Your task to perform on an android device: turn off data saver in the chrome app Image 0: 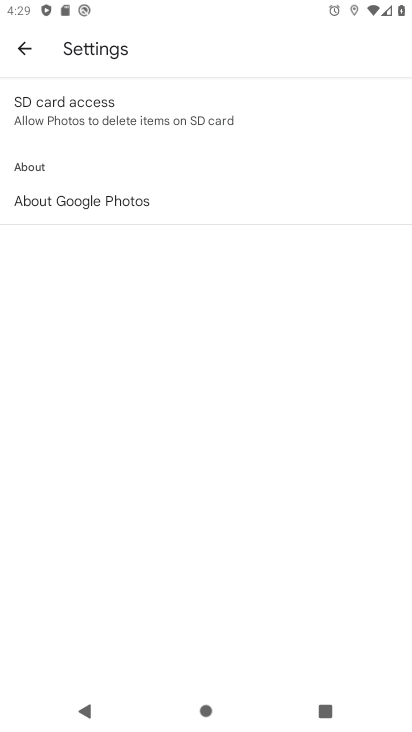
Step 0: press home button
Your task to perform on an android device: turn off data saver in the chrome app Image 1: 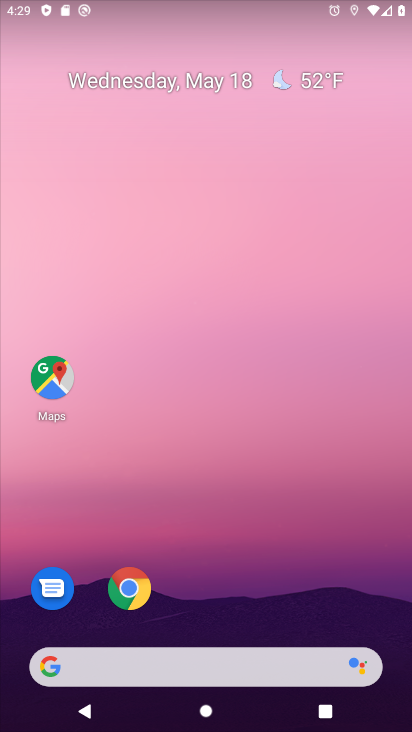
Step 1: click (117, 584)
Your task to perform on an android device: turn off data saver in the chrome app Image 2: 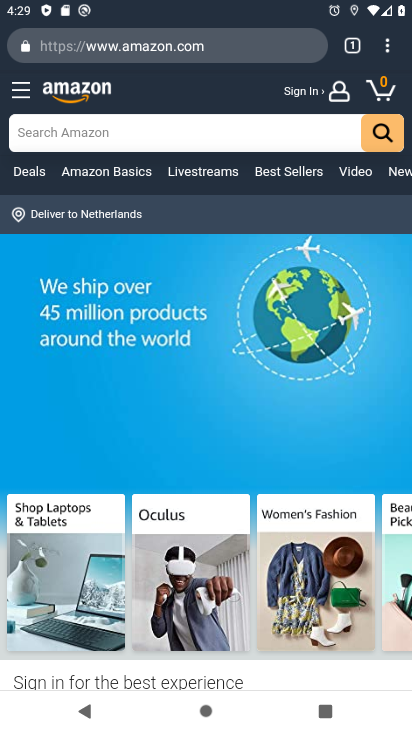
Step 2: drag from (384, 46) to (247, 554)
Your task to perform on an android device: turn off data saver in the chrome app Image 3: 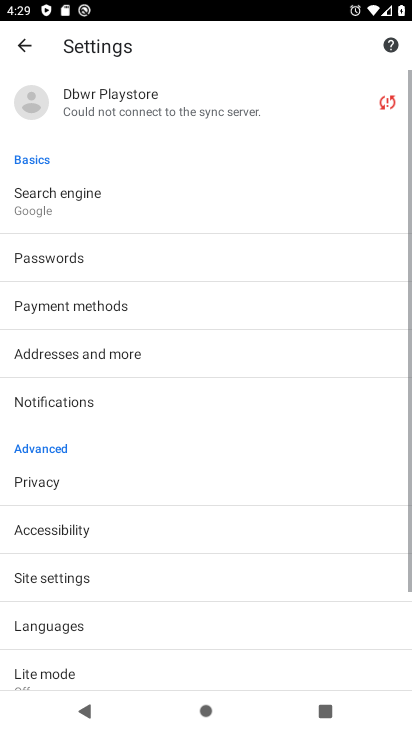
Step 3: drag from (151, 533) to (205, 48)
Your task to perform on an android device: turn off data saver in the chrome app Image 4: 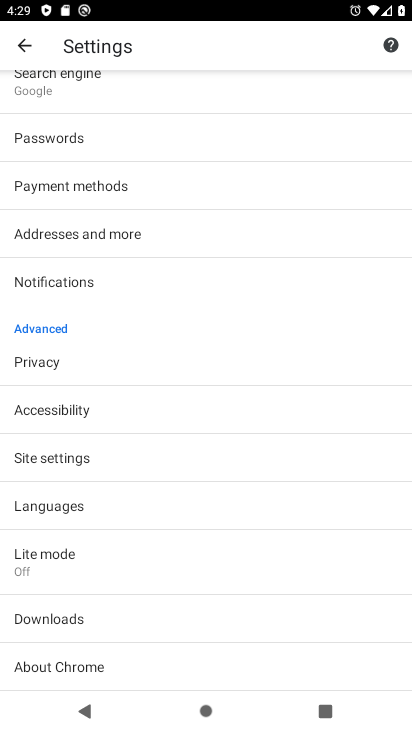
Step 4: click (41, 556)
Your task to perform on an android device: turn off data saver in the chrome app Image 5: 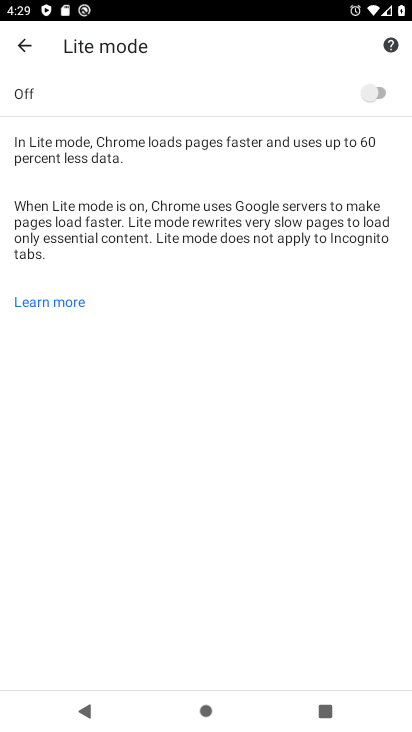
Step 5: task complete